Your task to perform on an android device: Go to Google Image 0: 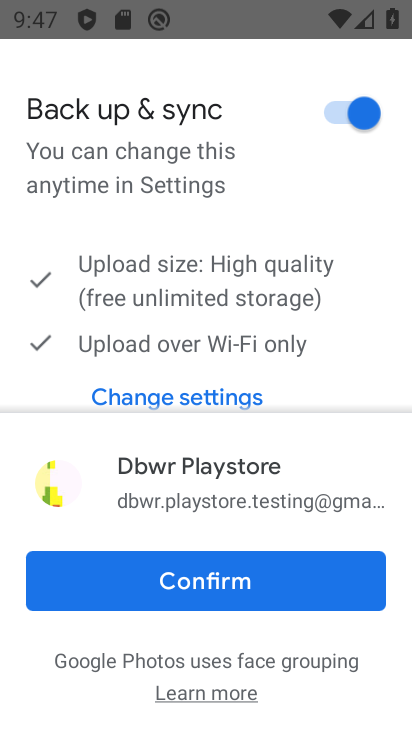
Step 0: press home button
Your task to perform on an android device: Go to Google Image 1: 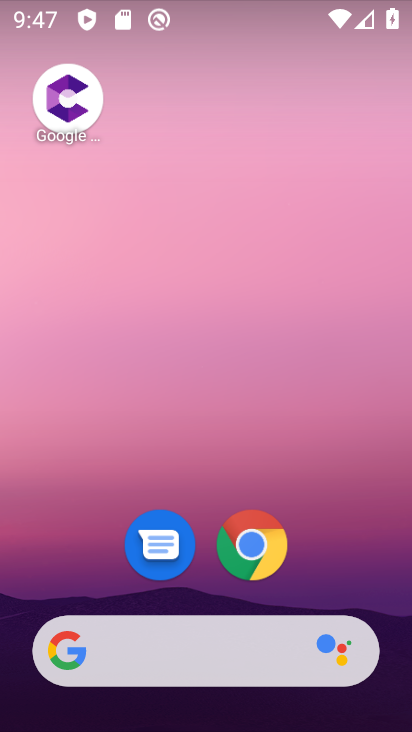
Step 1: drag from (333, 573) to (232, 171)
Your task to perform on an android device: Go to Google Image 2: 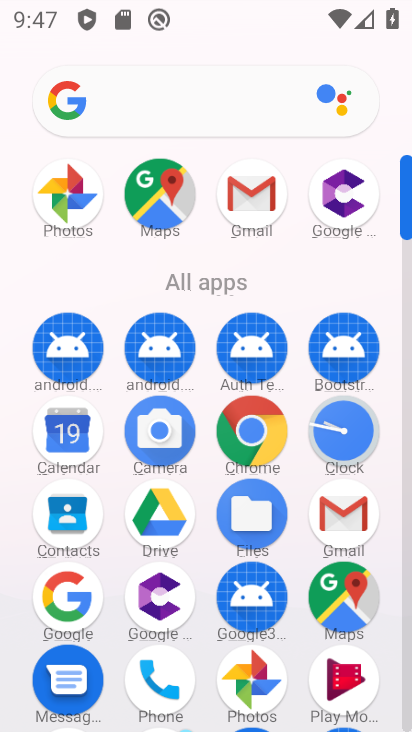
Step 2: click (62, 599)
Your task to perform on an android device: Go to Google Image 3: 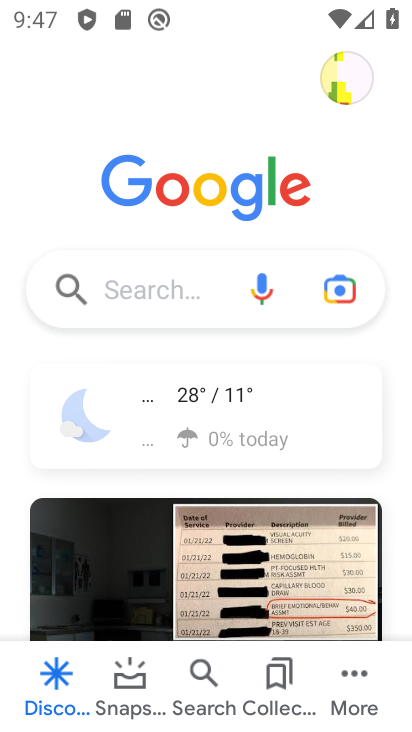
Step 3: task complete